Your task to perform on an android device: open a bookmark in the chrome app Image 0: 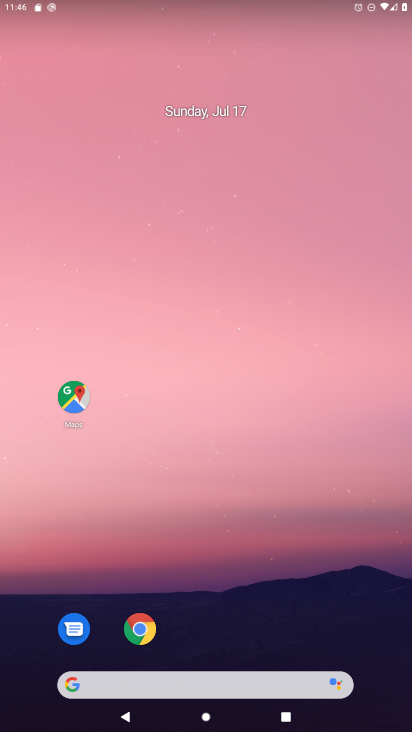
Step 0: click (139, 630)
Your task to perform on an android device: open a bookmark in the chrome app Image 1: 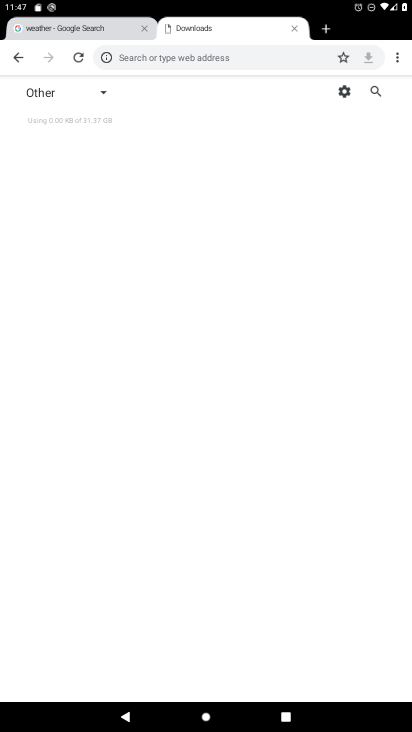
Step 1: click (397, 58)
Your task to perform on an android device: open a bookmark in the chrome app Image 2: 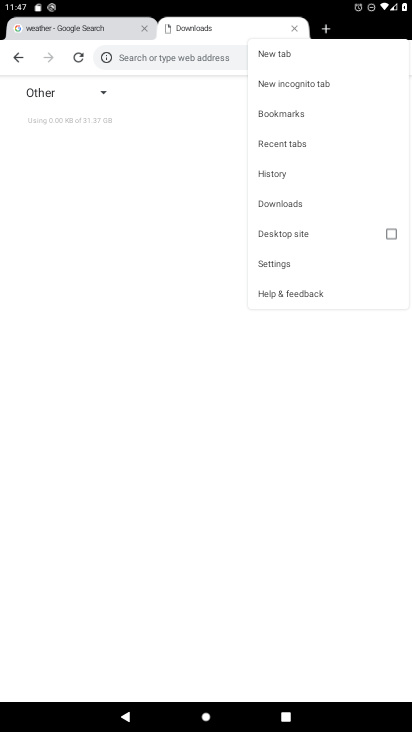
Step 2: click (295, 115)
Your task to perform on an android device: open a bookmark in the chrome app Image 3: 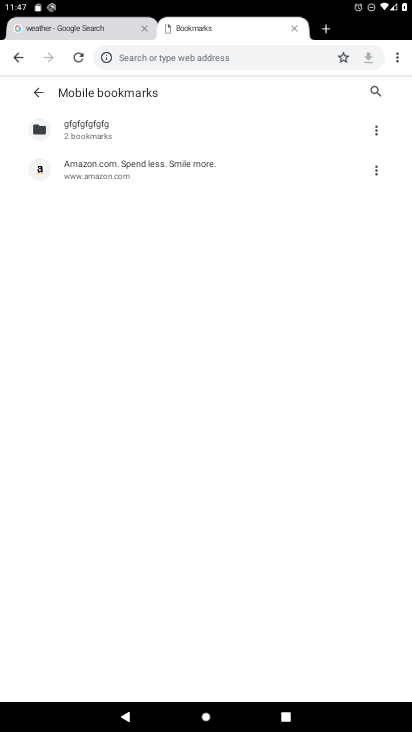
Step 3: task complete